Your task to perform on an android device: Is it going to rain this weekend? Image 0: 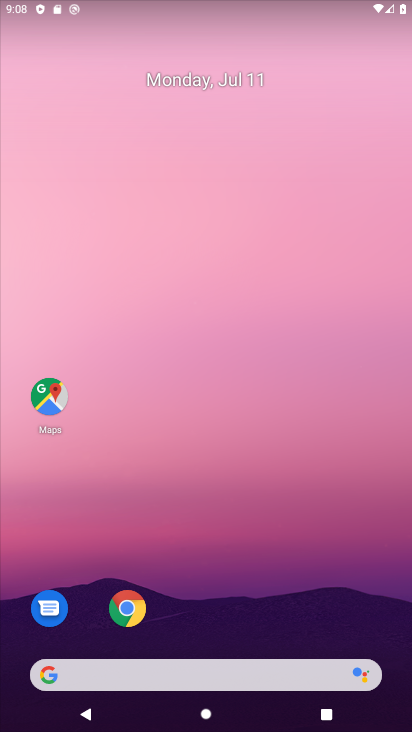
Step 0: drag from (175, 609) to (200, 141)
Your task to perform on an android device: Is it going to rain this weekend? Image 1: 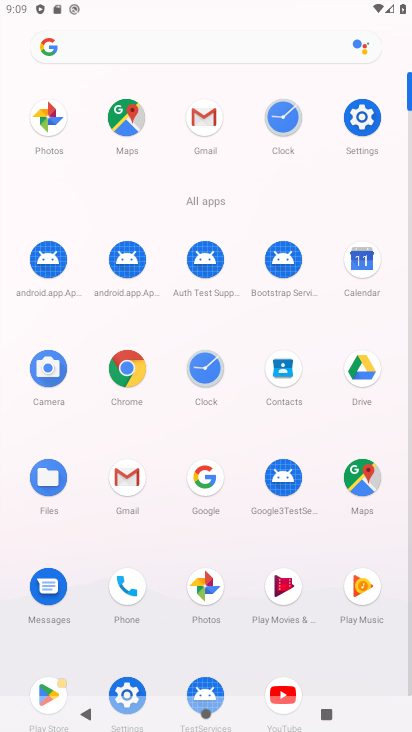
Step 1: click (204, 482)
Your task to perform on an android device: Is it going to rain this weekend? Image 2: 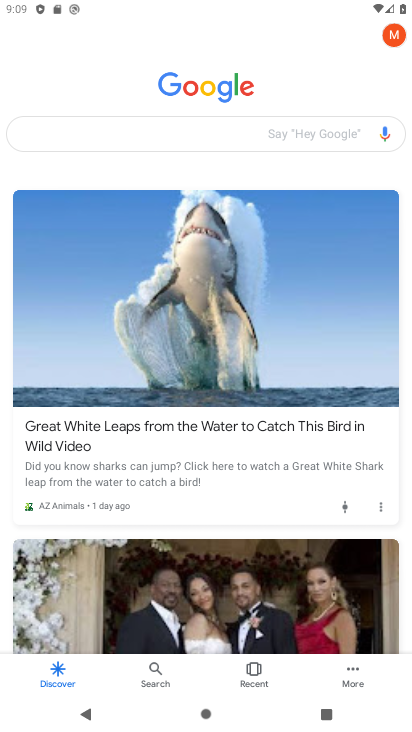
Step 2: click (188, 132)
Your task to perform on an android device: Is it going to rain this weekend? Image 3: 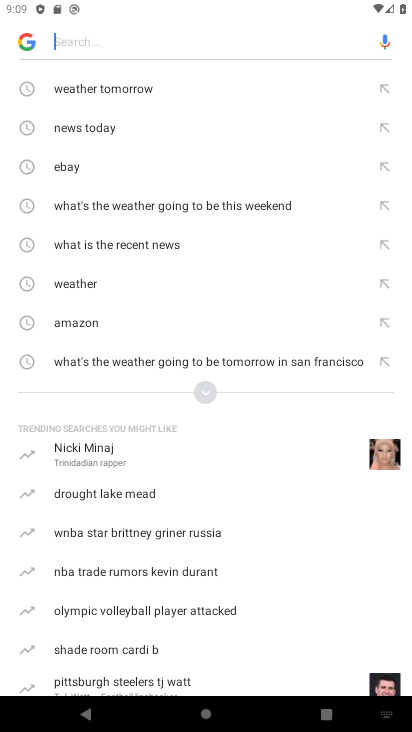
Step 3: click (93, 280)
Your task to perform on an android device: Is it going to rain this weekend? Image 4: 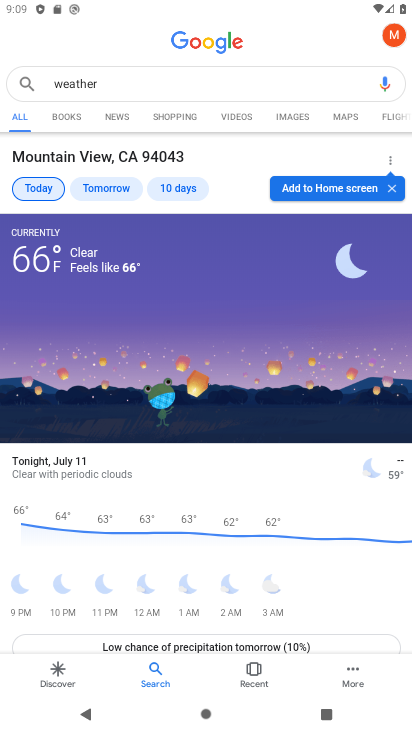
Step 4: task complete